Your task to perform on an android device: Clear the cart on target.com. Search for logitech g910 on target.com, select the first entry, and add it to the cart. Image 0: 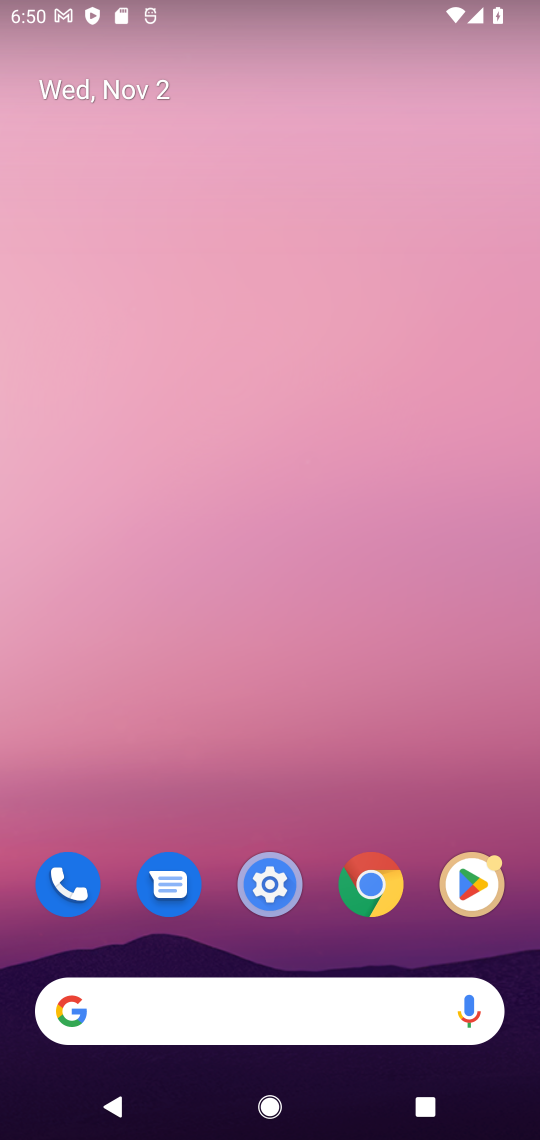
Step 0: click (120, 1007)
Your task to perform on an android device: Clear the cart on target.com. Search for logitech g910 on target.com, select the first entry, and add it to the cart. Image 1: 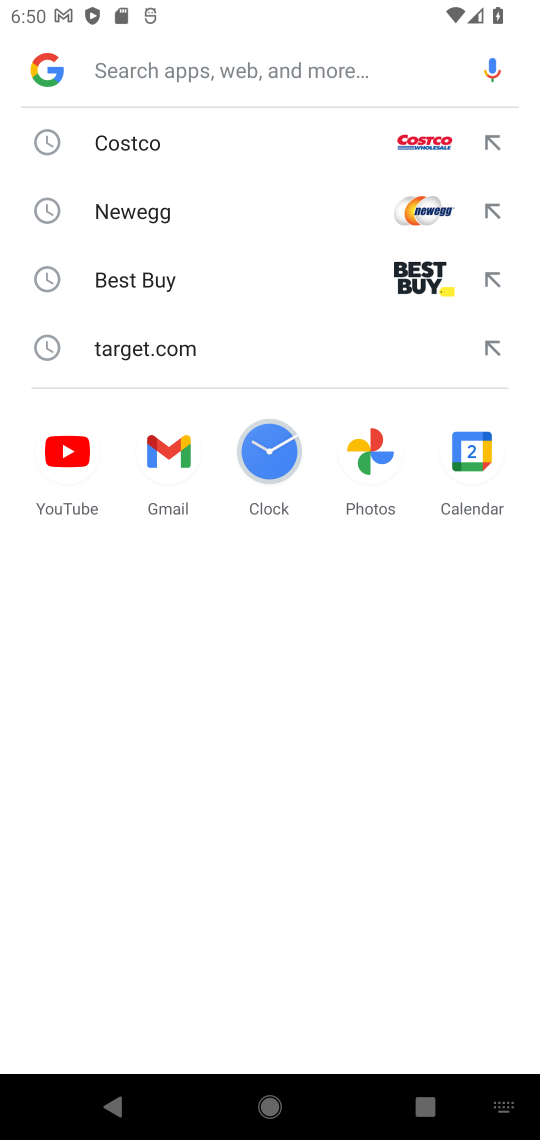
Step 1: click (175, 340)
Your task to perform on an android device: Clear the cart on target.com. Search for logitech g910 on target.com, select the first entry, and add it to the cart. Image 2: 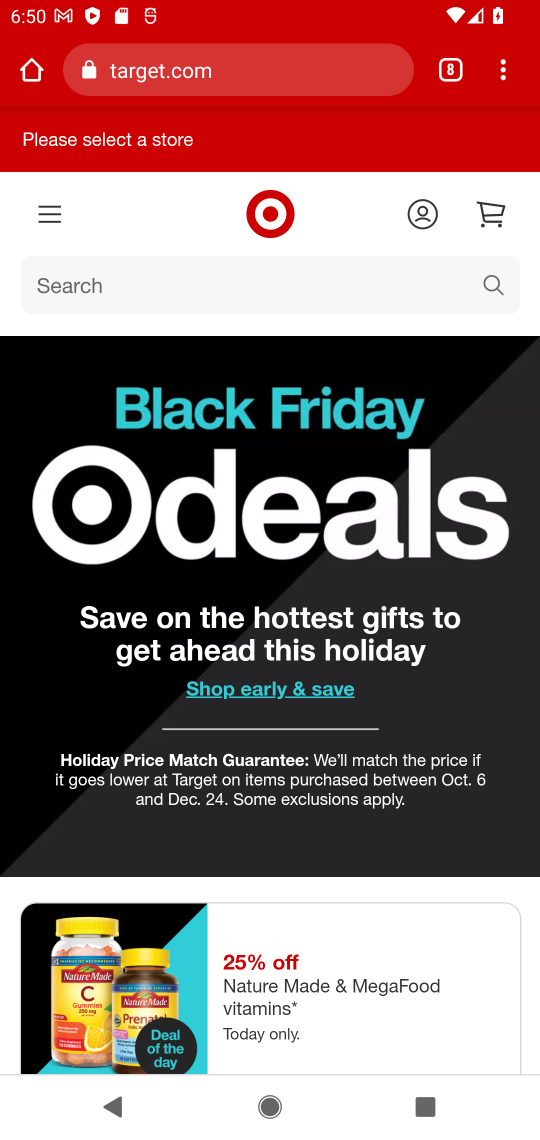
Step 2: click (342, 271)
Your task to perform on an android device: Clear the cart on target.com. Search for logitech g910 on target.com, select the first entry, and add it to the cart. Image 3: 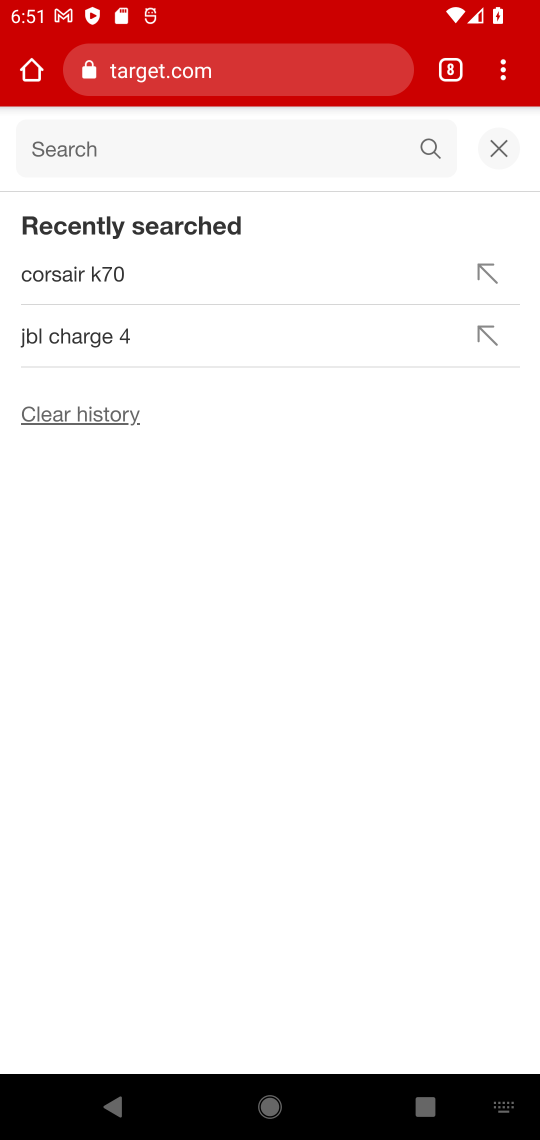
Step 3: type "logitech g910g"
Your task to perform on an android device: Clear the cart on target.com. Search for logitech g910 on target.com, select the first entry, and add it to the cart. Image 4: 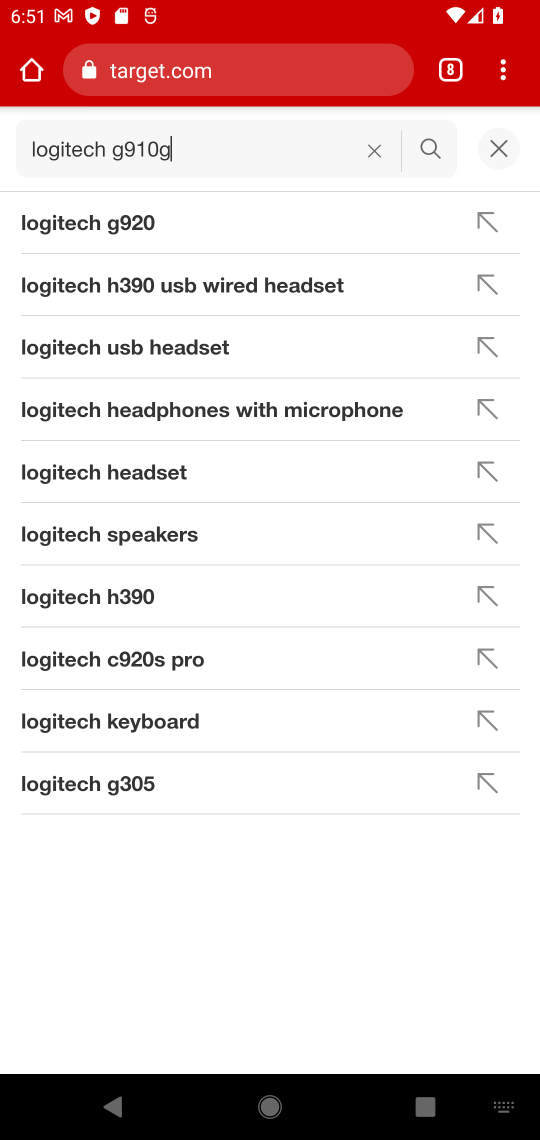
Step 4: click (464, 227)
Your task to perform on an android device: Clear the cart on target.com. Search for logitech g910 on target.com, select the first entry, and add it to the cart. Image 5: 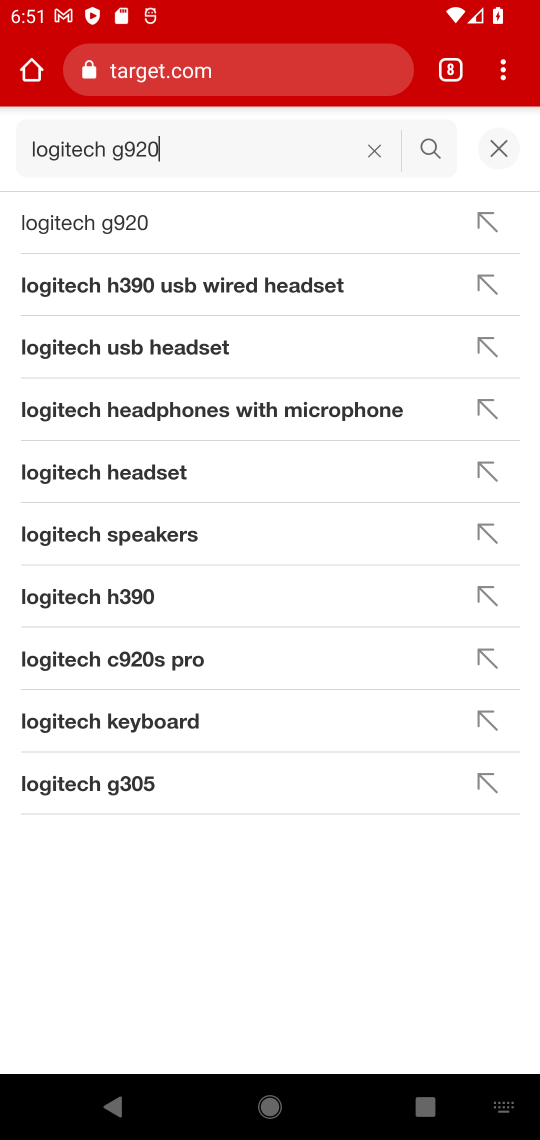
Step 5: click (422, 153)
Your task to perform on an android device: Clear the cart on target.com. Search for logitech g910 on target.com, select the first entry, and add it to the cart. Image 6: 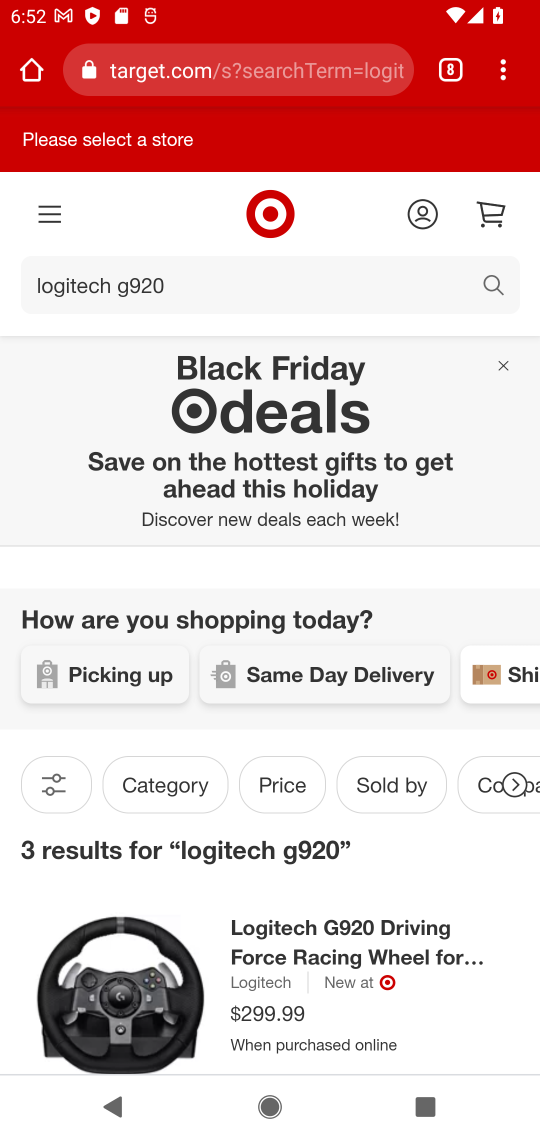
Step 6: click (252, 1033)
Your task to perform on an android device: Clear the cart on target.com. Search for logitech g910 on target.com, select the first entry, and add it to the cart. Image 7: 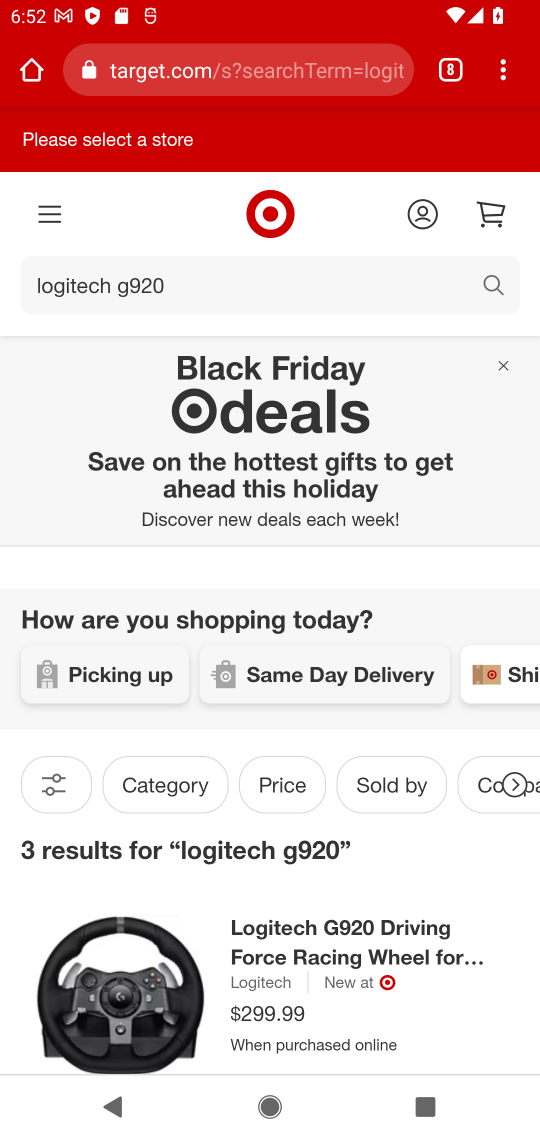
Step 7: task complete